Your task to perform on an android device: choose inbox layout in the gmail app Image 0: 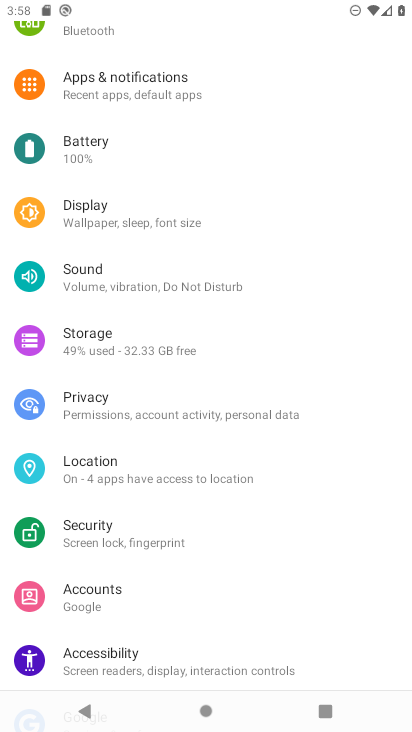
Step 0: press home button
Your task to perform on an android device: choose inbox layout in the gmail app Image 1: 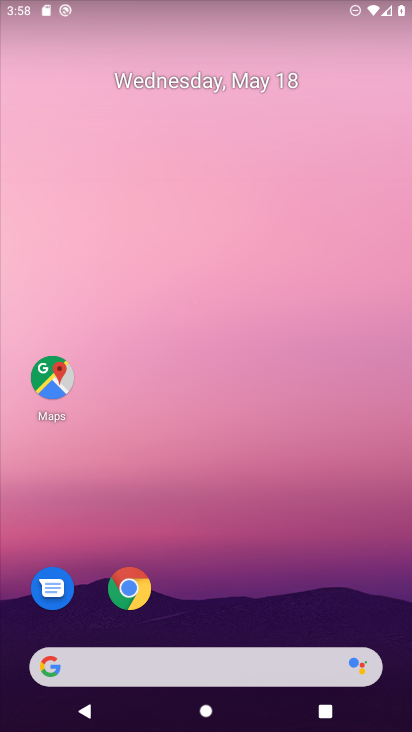
Step 1: drag from (281, 586) to (280, 216)
Your task to perform on an android device: choose inbox layout in the gmail app Image 2: 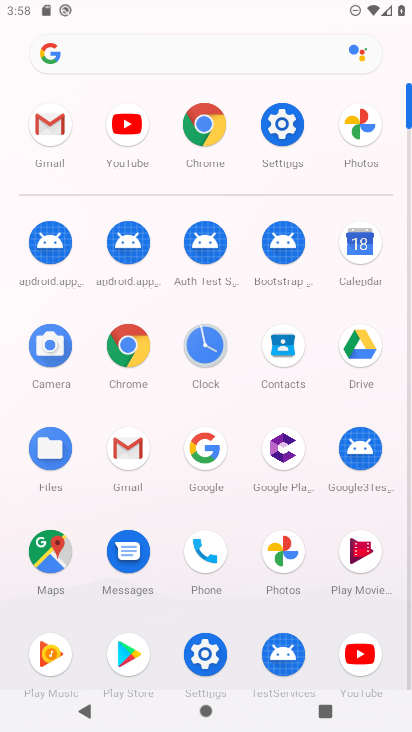
Step 2: click (134, 461)
Your task to perform on an android device: choose inbox layout in the gmail app Image 3: 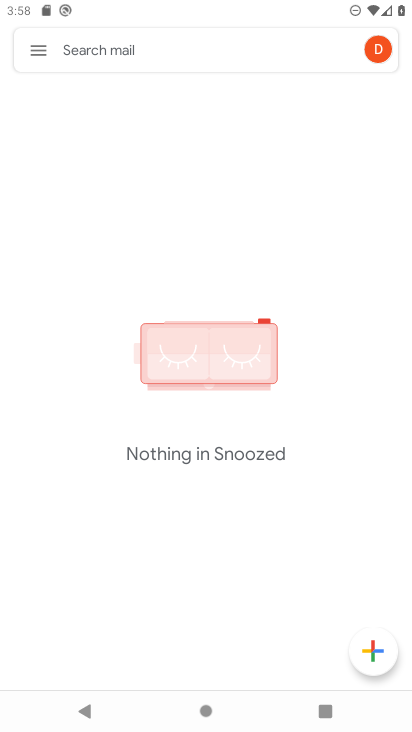
Step 3: click (46, 54)
Your task to perform on an android device: choose inbox layout in the gmail app Image 4: 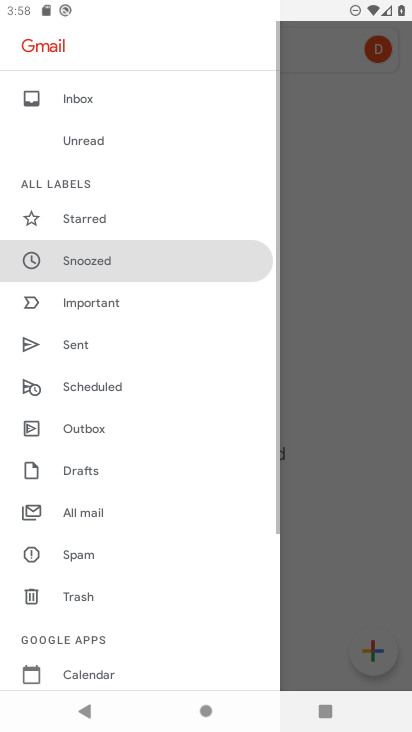
Step 4: click (97, 115)
Your task to perform on an android device: choose inbox layout in the gmail app Image 5: 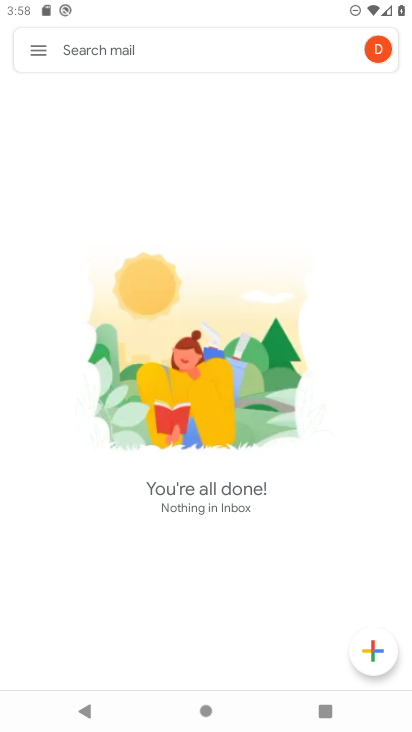
Step 5: task complete